Your task to perform on an android device: open app "ZOOM Cloud Meetings" (install if not already installed) Image 0: 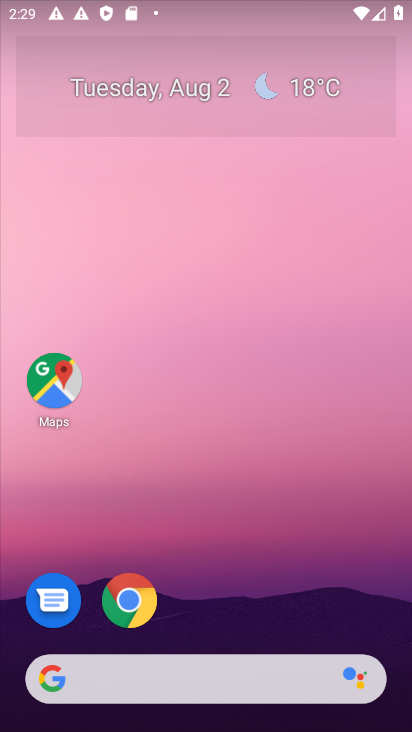
Step 0: drag from (106, 715) to (257, 0)
Your task to perform on an android device: open app "ZOOM Cloud Meetings" (install if not already installed) Image 1: 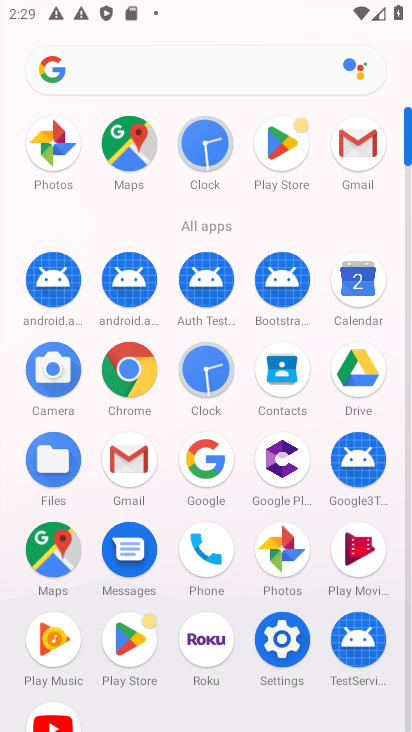
Step 1: click (322, 148)
Your task to perform on an android device: open app "ZOOM Cloud Meetings" (install if not already installed) Image 2: 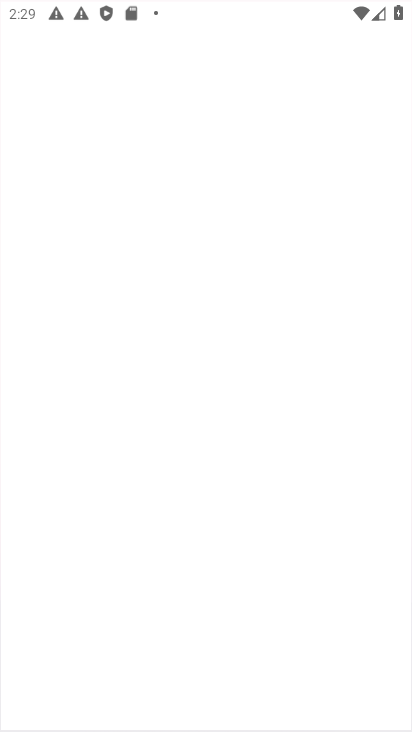
Step 2: click (301, 152)
Your task to perform on an android device: open app "ZOOM Cloud Meetings" (install if not already installed) Image 3: 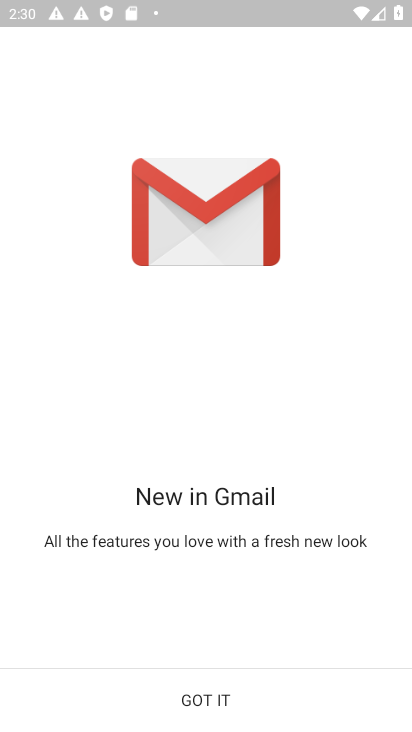
Step 3: press home button
Your task to perform on an android device: open app "ZOOM Cloud Meetings" (install if not already installed) Image 4: 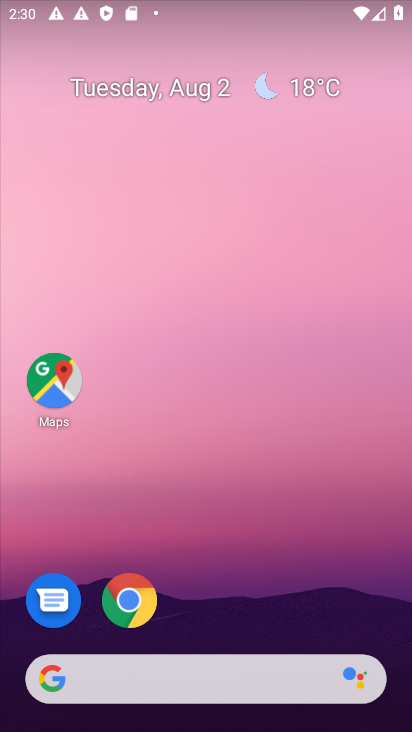
Step 4: drag from (197, 473) to (316, 111)
Your task to perform on an android device: open app "ZOOM Cloud Meetings" (install if not already installed) Image 5: 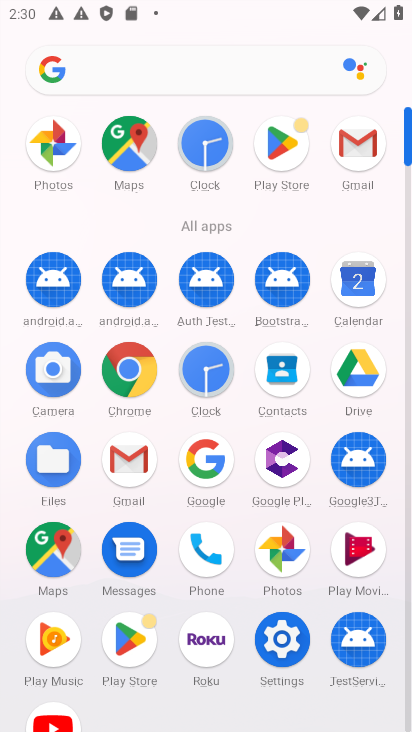
Step 5: click (280, 144)
Your task to perform on an android device: open app "ZOOM Cloud Meetings" (install if not already installed) Image 6: 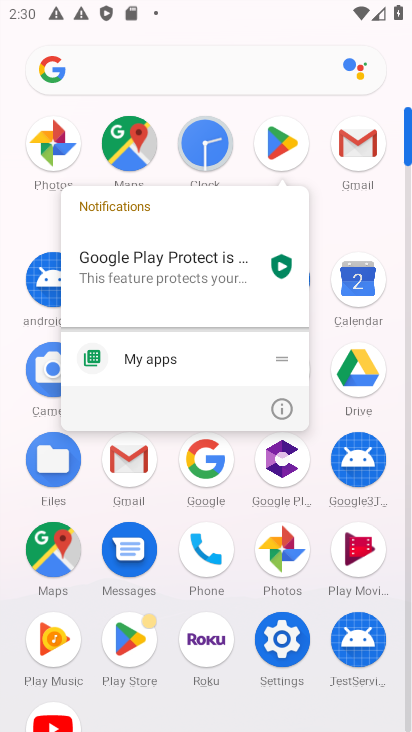
Step 6: click (280, 144)
Your task to perform on an android device: open app "ZOOM Cloud Meetings" (install if not already installed) Image 7: 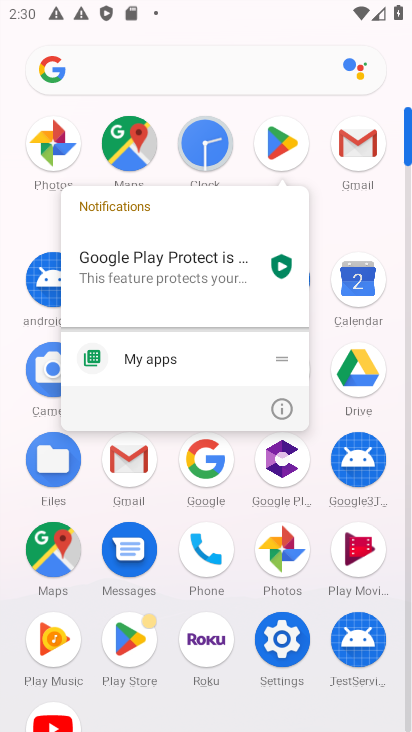
Step 7: click (280, 144)
Your task to perform on an android device: open app "ZOOM Cloud Meetings" (install if not already installed) Image 8: 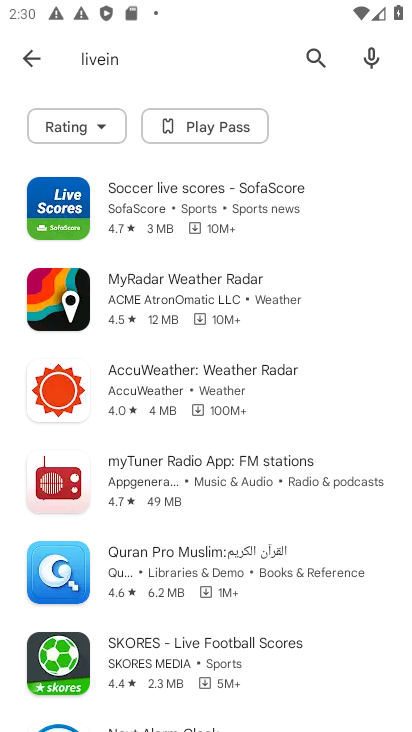
Step 8: click (312, 53)
Your task to perform on an android device: open app "ZOOM Cloud Meetings" (install if not already installed) Image 9: 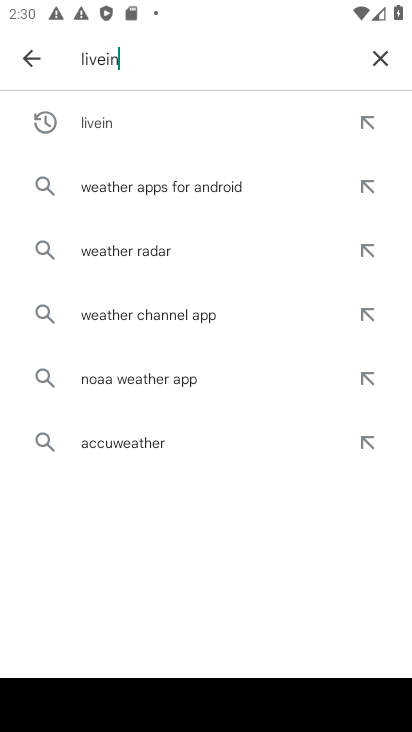
Step 9: click (373, 58)
Your task to perform on an android device: open app "ZOOM Cloud Meetings" (install if not already installed) Image 10: 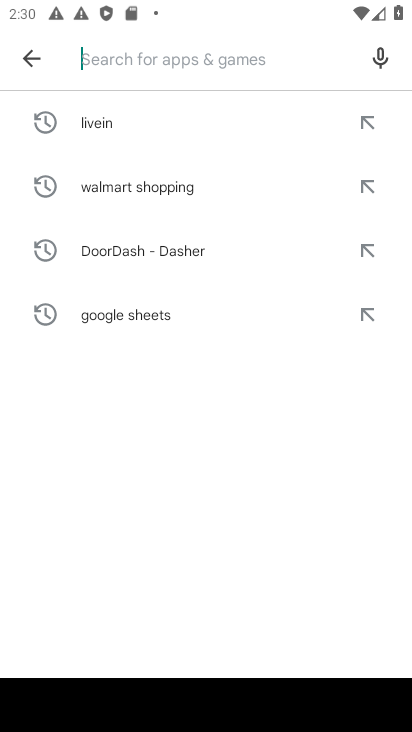
Step 10: type "ZOOM Cloud Meetings"
Your task to perform on an android device: open app "ZOOM Cloud Meetings" (install if not already installed) Image 11: 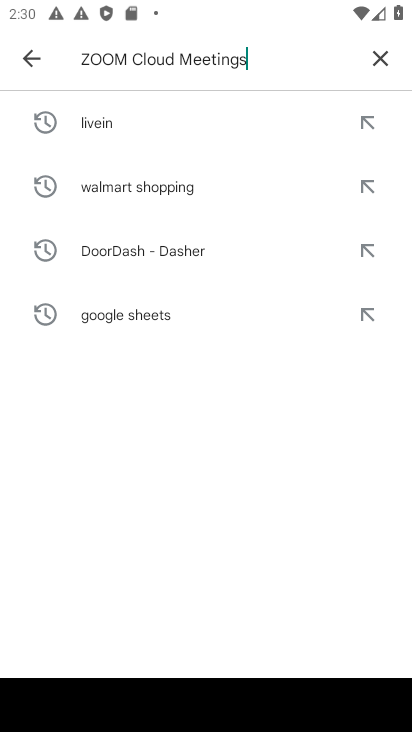
Step 11: type ""
Your task to perform on an android device: open app "ZOOM Cloud Meetings" (install if not already installed) Image 12: 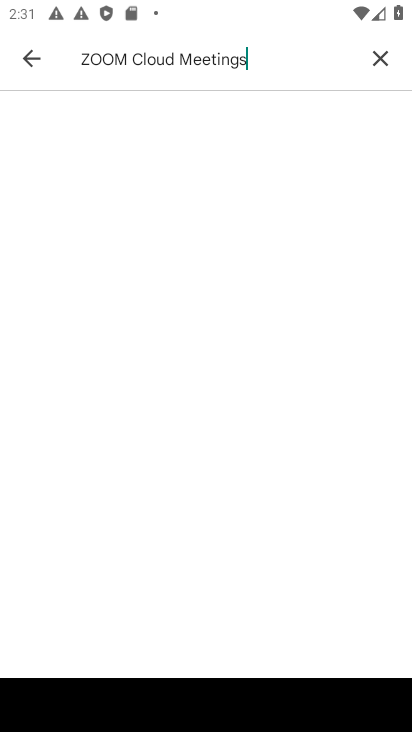
Step 12: press enter
Your task to perform on an android device: open app "ZOOM Cloud Meetings" (install if not already installed) Image 13: 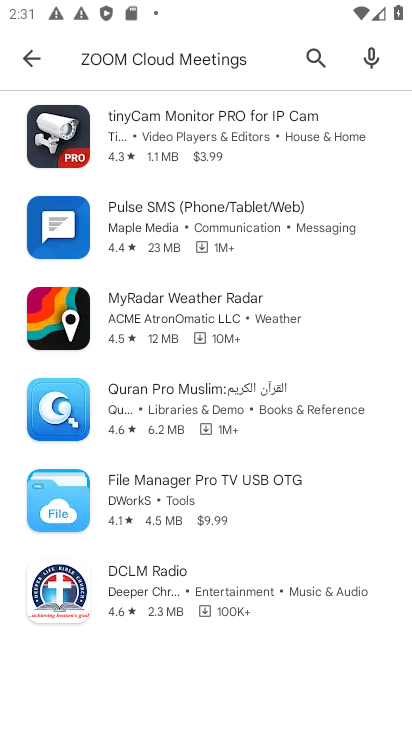
Step 13: task complete